Your task to perform on an android device: open chrome privacy settings Image 0: 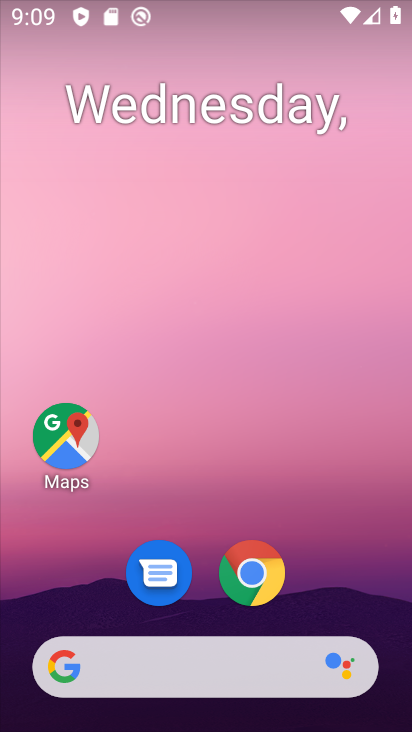
Step 0: click (249, 572)
Your task to perform on an android device: open chrome privacy settings Image 1: 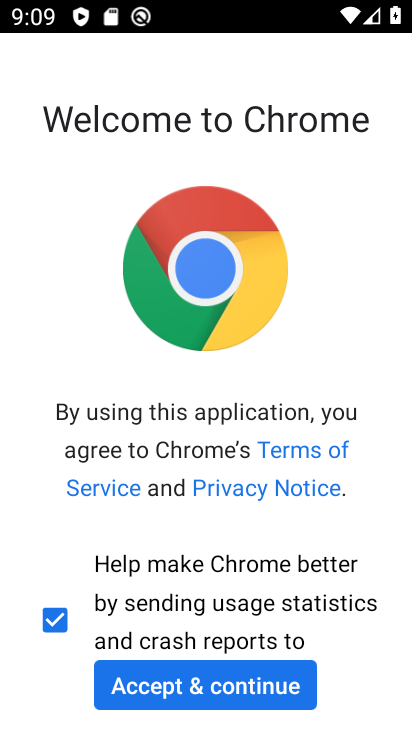
Step 1: click (248, 679)
Your task to perform on an android device: open chrome privacy settings Image 2: 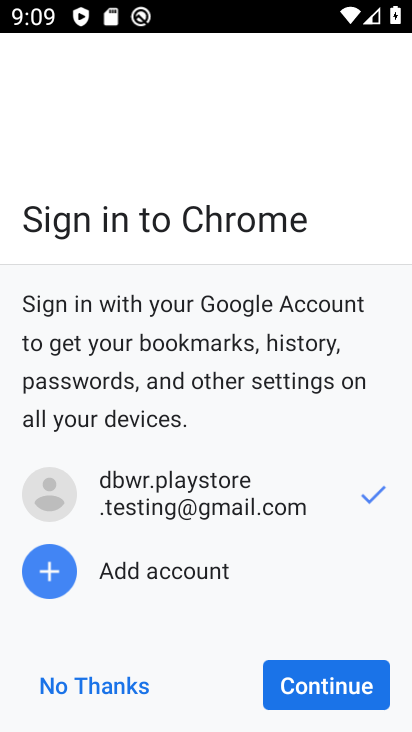
Step 2: click (339, 684)
Your task to perform on an android device: open chrome privacy settings Image 3: 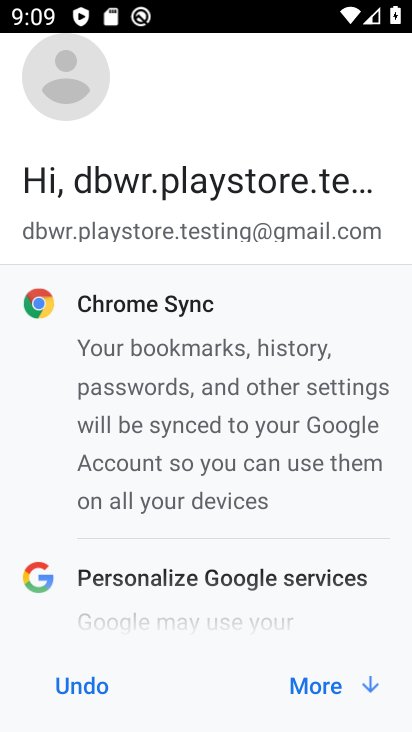
Step 3: click (296, 683)
Your task to perform on an android device: open chrome privacy settings Image 4: 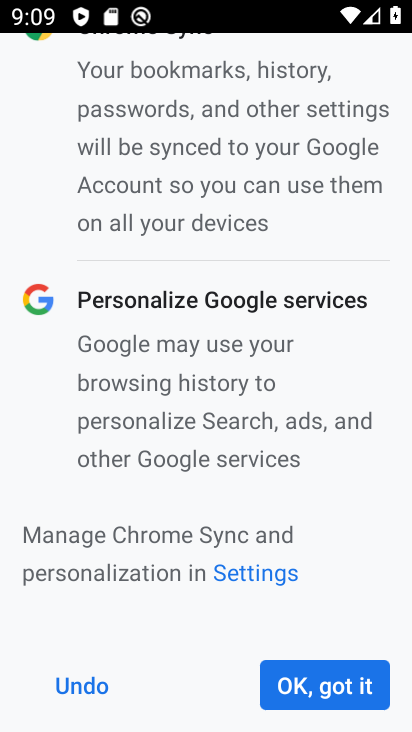
Step 4: click (341, 676)
Your task to perform on an android device: open chrome privacy settings Image 5: 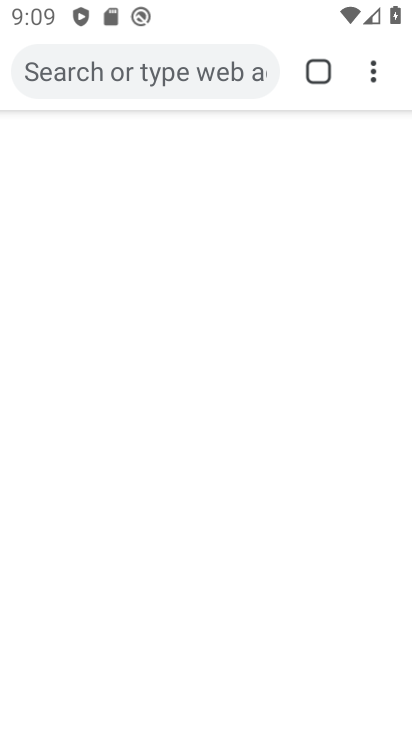
Step 5: click (371, 68)
Your task to perform on an android device: open chrome privacy settings Image 6: 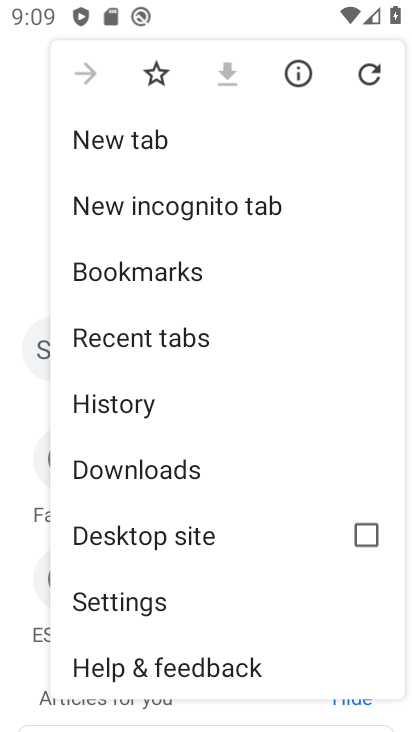
Step 6: drag from (215, 582) to (239, 437)
Your task to perform on an android device: open chrome privacy settings Image 7: 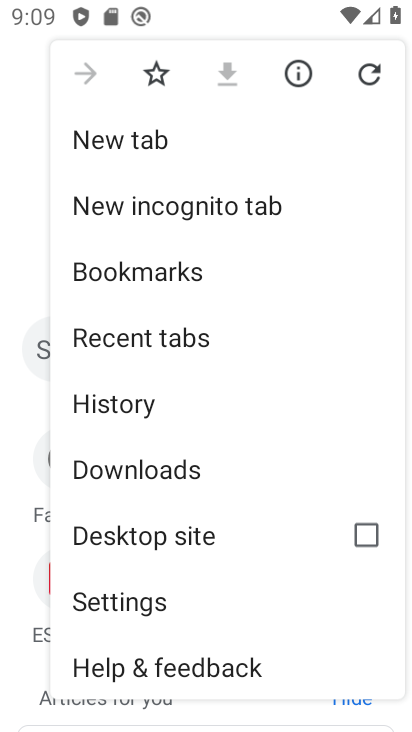
Step 7: click (122, 587)
Your task to perform on an android device: open chrome privacy settings Image 8: 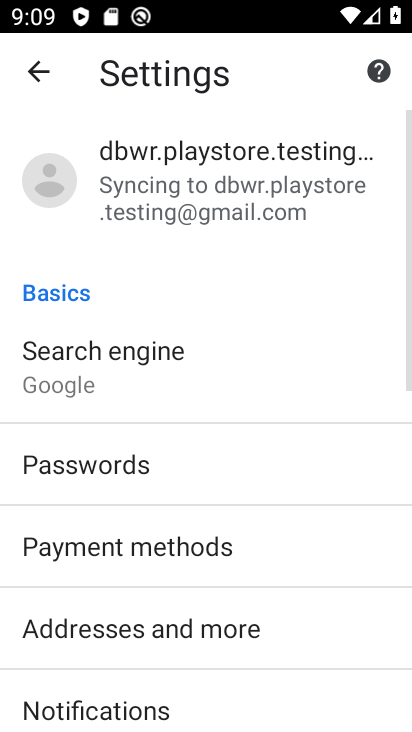
Step 8: drag from (173, 587) to (216, 329)
Your task to perform on an android device: open chrome privacy settings Image 9: 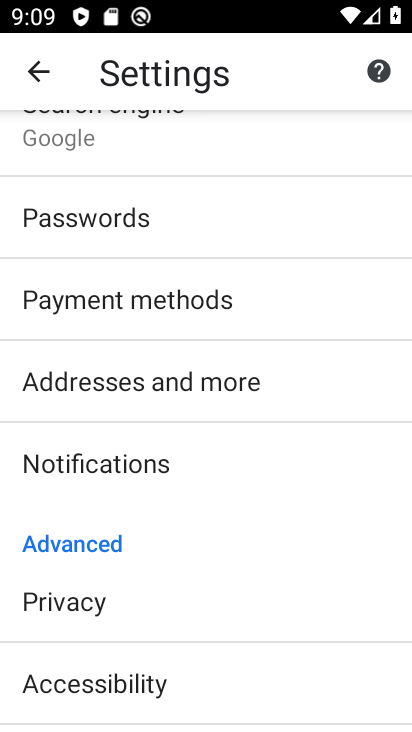
Step 9: click (106, 607)
Your task to perform on an android device: open chrome privacy settings Image 10: 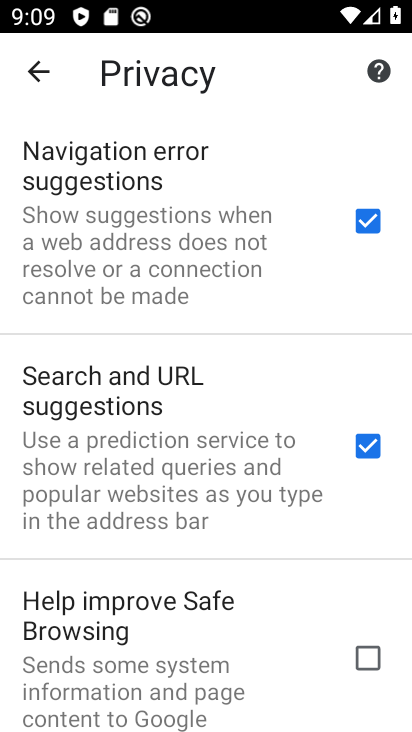
Step 10: task complete